Your task to perform on an android device: Clear the cart on amazon. Search for "bose soundlink" on amazon, select the first entry, add it to the cart, then select checkout. Image 0: 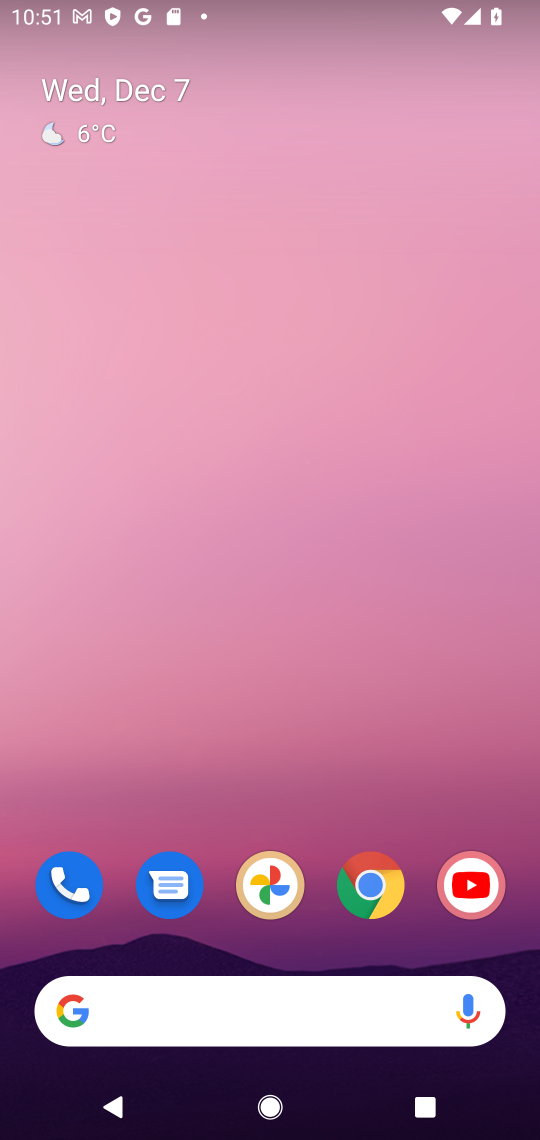
Step 0: click (363, 893)
Your task to perform on an android device: Clear the cart on amazon. Search for "bose soundlink" on amazon, select the first entry, add it to the cart, then select checkout. Image 1: 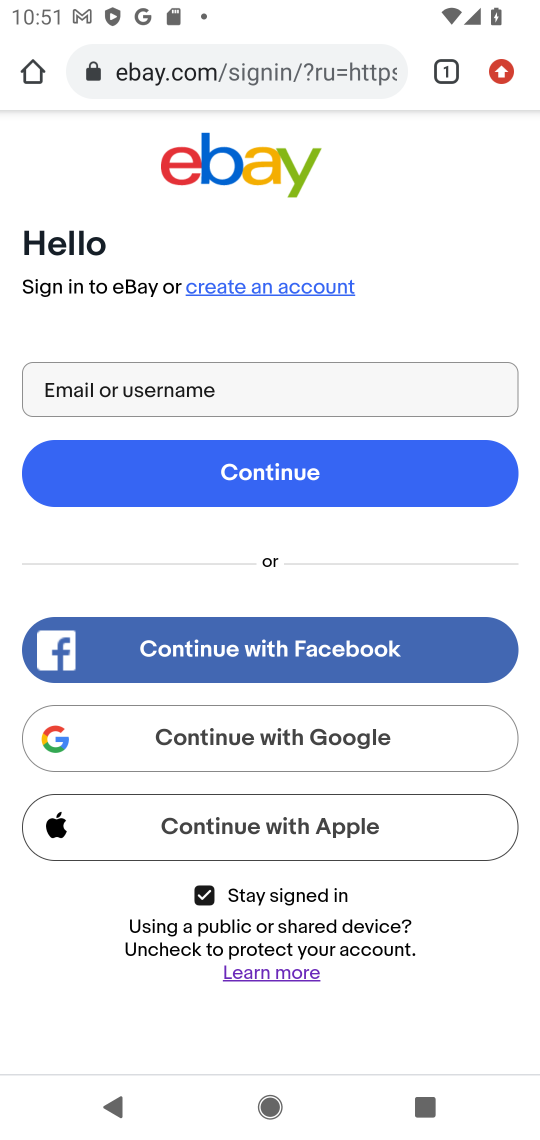
Step 1: click (244, 64)
Your task to perform on an android device: Clear the cart on amazon. Search for "bose soundlink" on amazon, select the first entry, add it to the cart, then select checkout. Image 2: 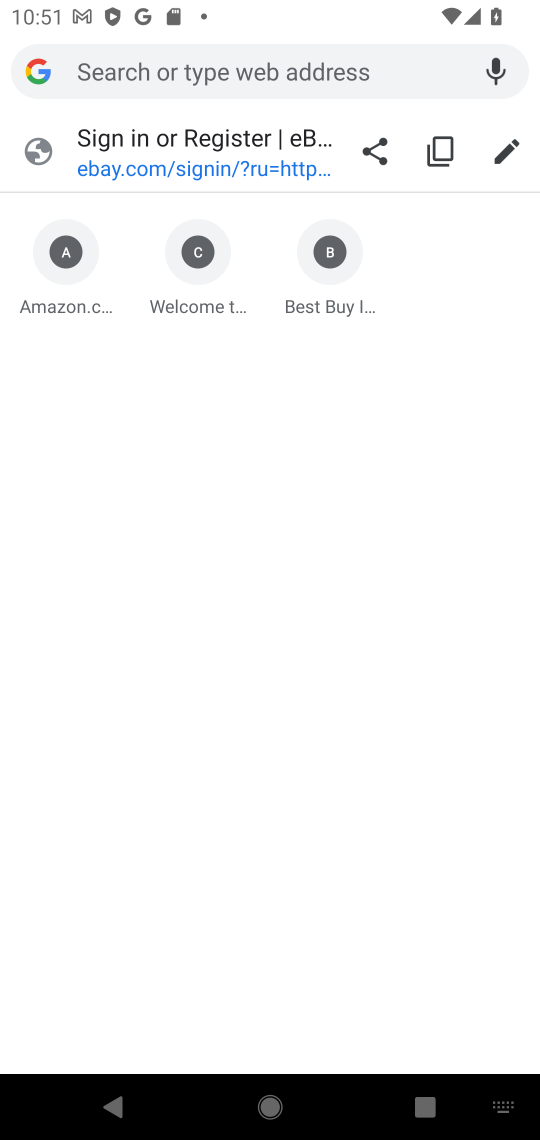
Step 2: click (56, 260)
Your task to perform on an android device: Clear the cart on amazon. Search for "bose soundlink" on amazon, select the first entry, add it to the cart, then select checkout. Image 3: 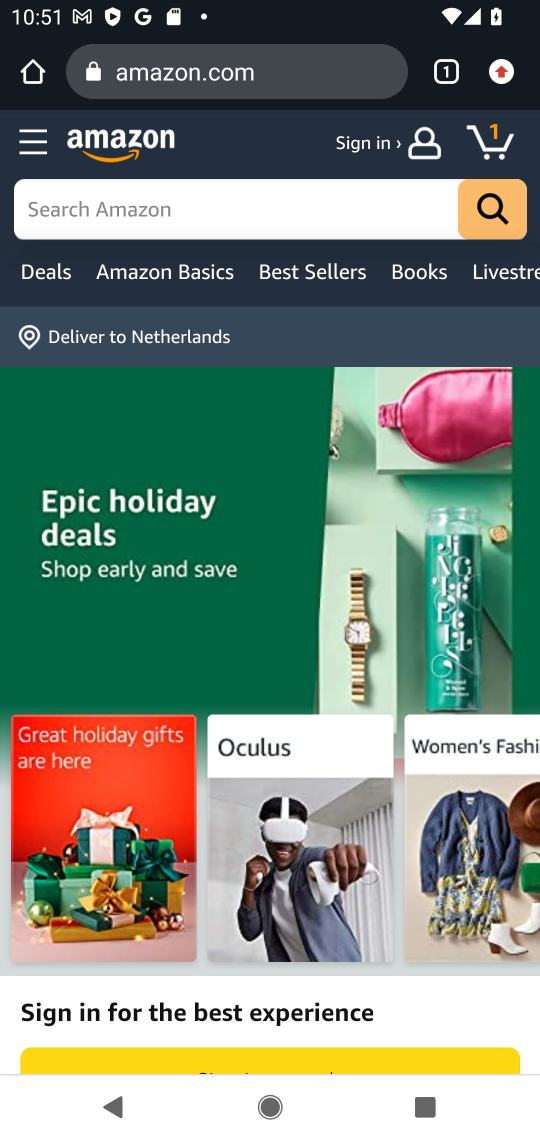
Step 3: click (479, 142)
Your task to perform on an android device: Clear the cart on amazon. Search for "bose soundlink" on amazon, select the first entry, add it to the cart, then select checkout. Image 4: 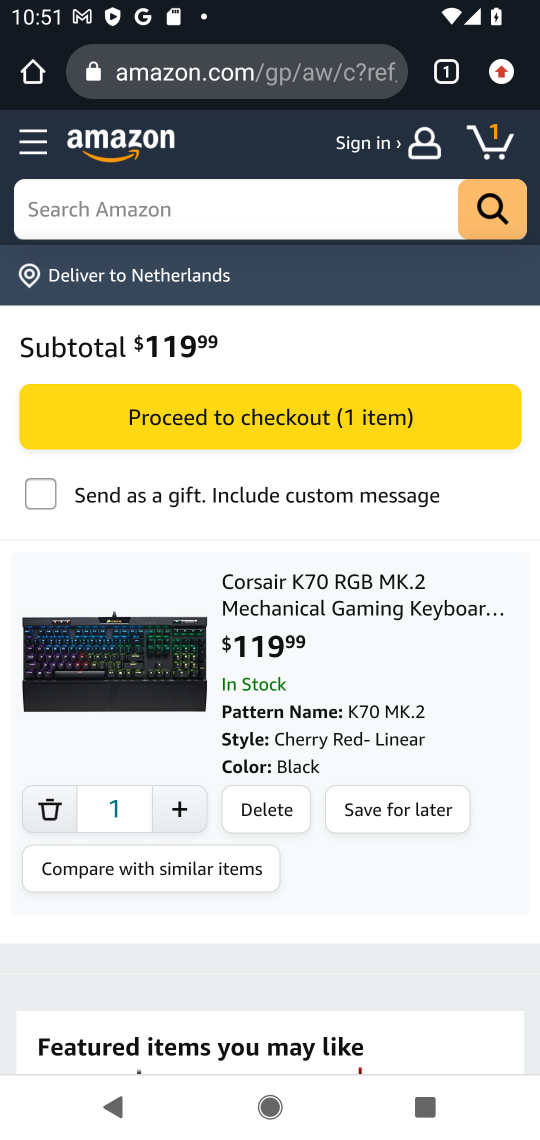
Step 4: click (260, 807)
Your task to perform on an android device: Clear the cart on amazon. Search for "bose soundlink" on amazon, select the first entry, add it to the cart, then select checkout. Image 5: 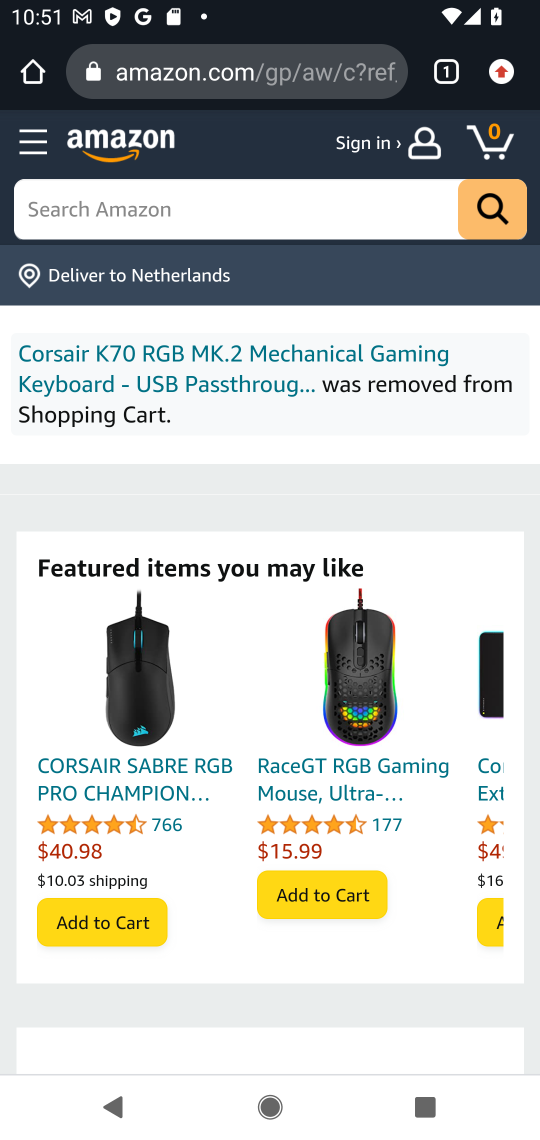
Step 5: click (329, 217)
Your task to perform on an android device: Clear the cart on amazon. Search for "bose soundlink" on amazon, select the first entry, add it to the cart, then select checkout. Image 6: 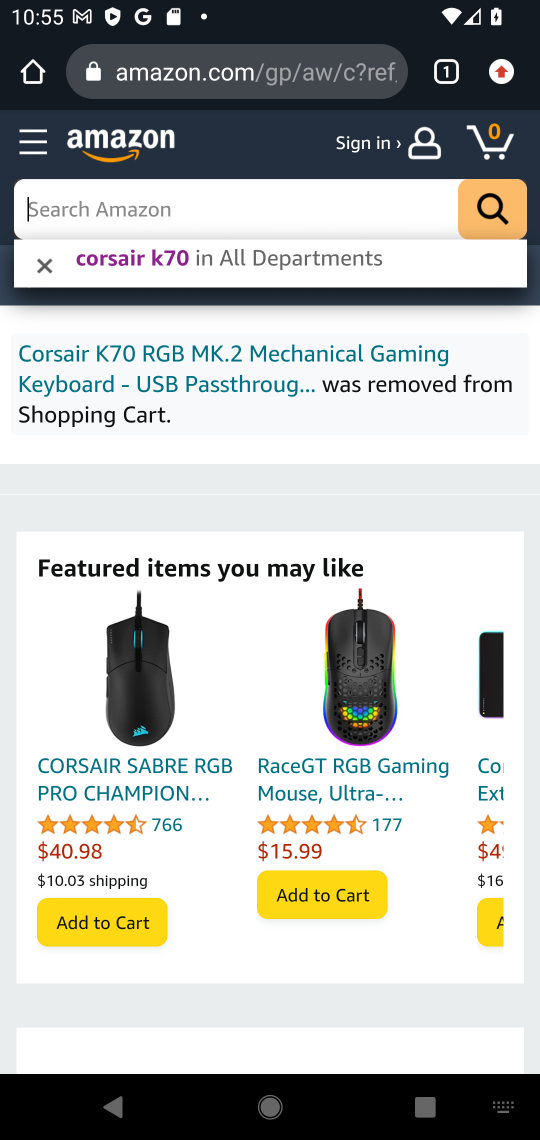
Step 6: type "bose soundlink"
Your task to perform on an android device: Clear the cart on amazon. Search for "bose soundlink" on amazon, select the first entry, add it to the cart, then select checkout. Image 7: 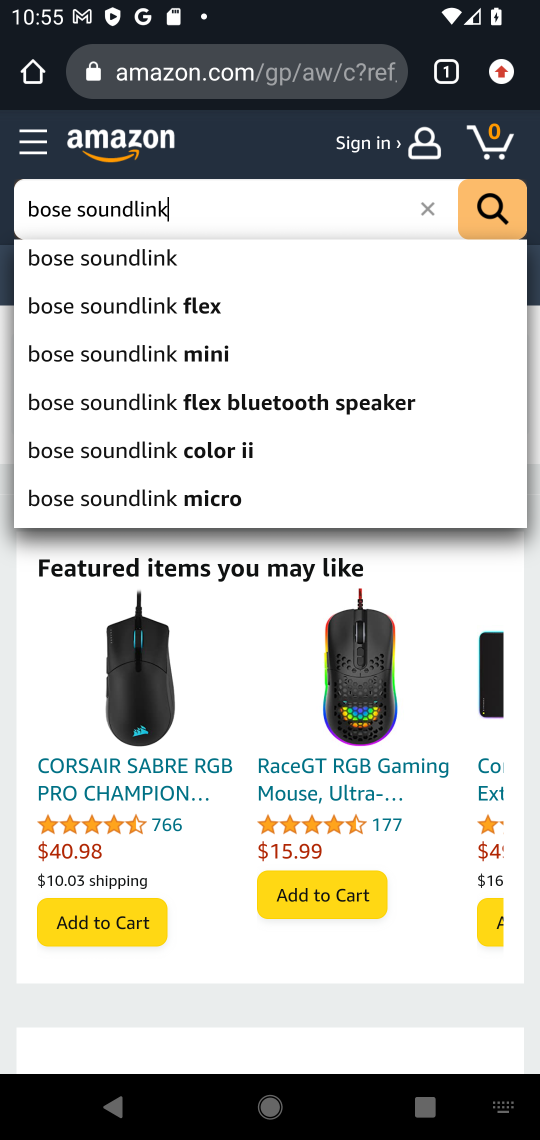
Step 7: click (142, 255)
Your task to perform on an android device: Clear the cart on amazon. Search for "bose soundlink" on amazon, select the first entry, add it to the cart, then select checkout. Image 8: 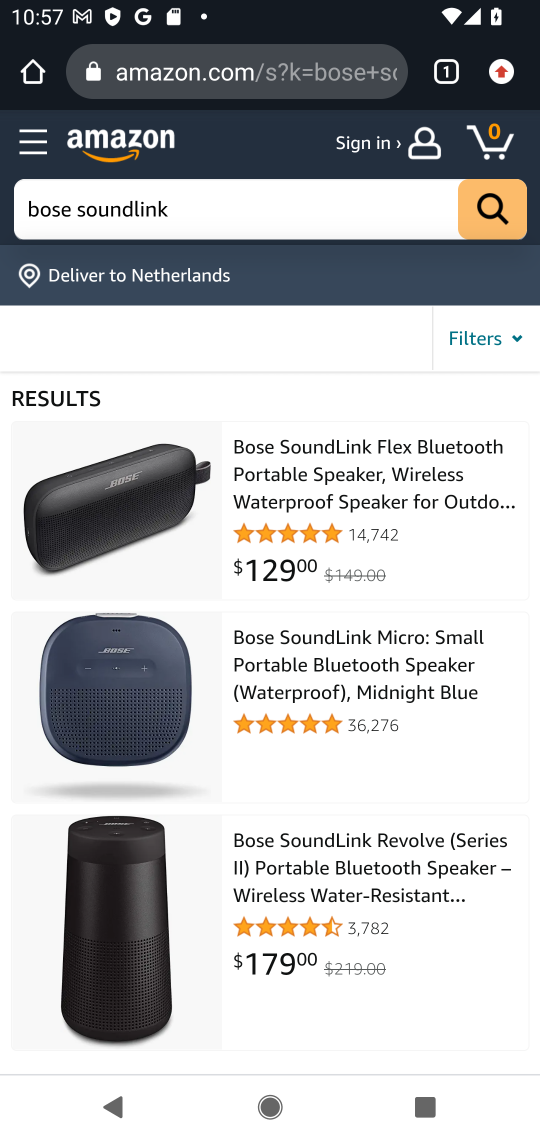
Step 8: click (169, 487)
Your task to perform on an android device: Clear the cart on amazon. Search for "bose soundlink" on amazon, select the first entry, add it to the cart, then select checkout. Image 9: 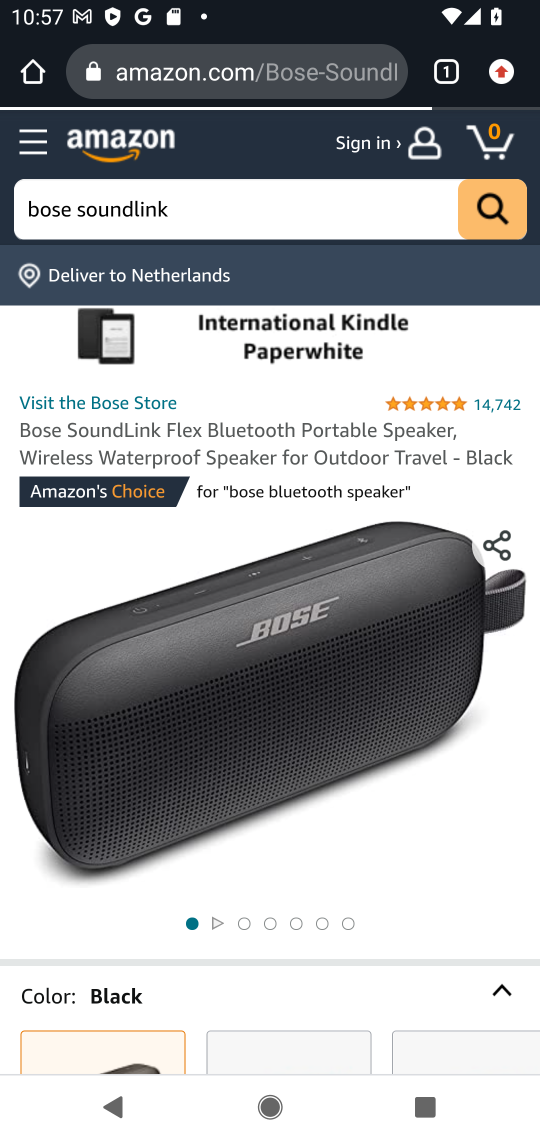
Step 9: task complete